Your task to perform on an android device: Open eBay Image 0: 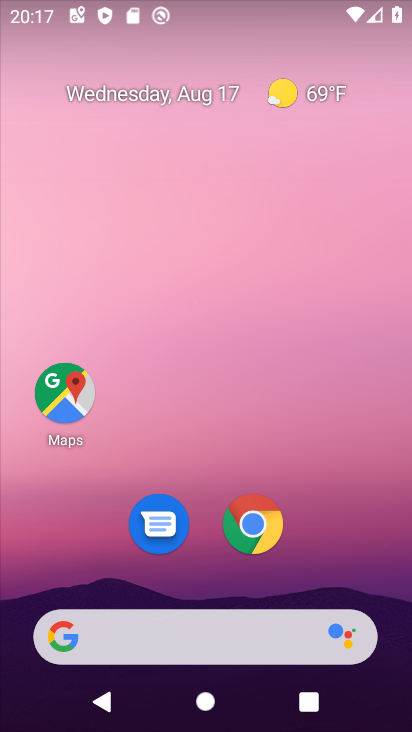
Step 0: click (225, 642)
Your task to perform on an android device: Open eBay Image 1: 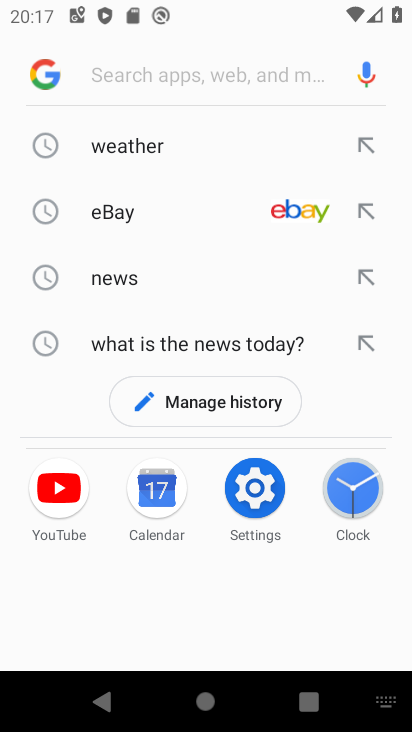
Step 1: click (218, 210)
Your task to perform on an android device: Open eBay Image 2: 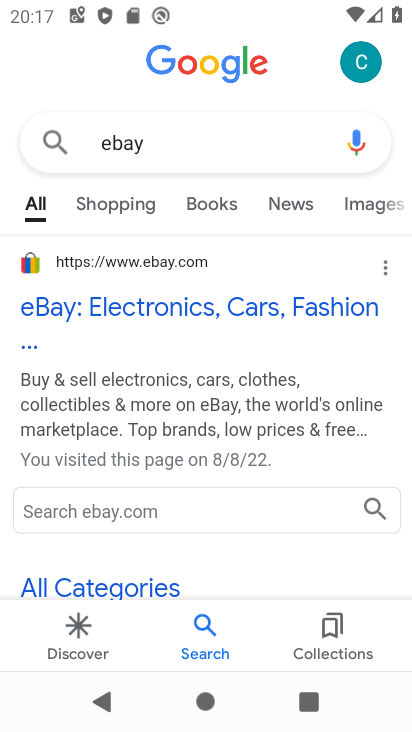
Step 2: click (204, 316)
Your task to perform on an android device: Open eBay Image 3: 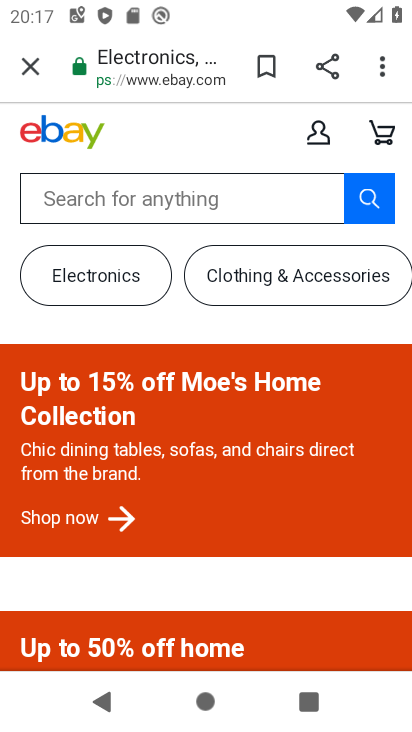
Step 3: task complete